Your task to perform on an android device: Show me recent news Image 0: 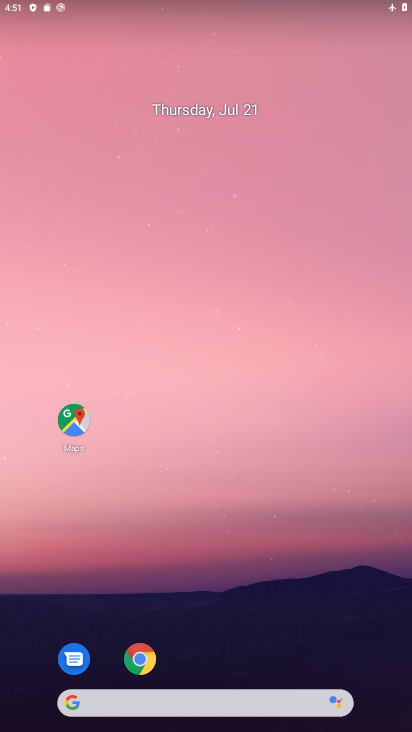
Step 0: drag from (8, 275) to (399, 314)
Your task to perform on an android device: Show me recent news Image 1: 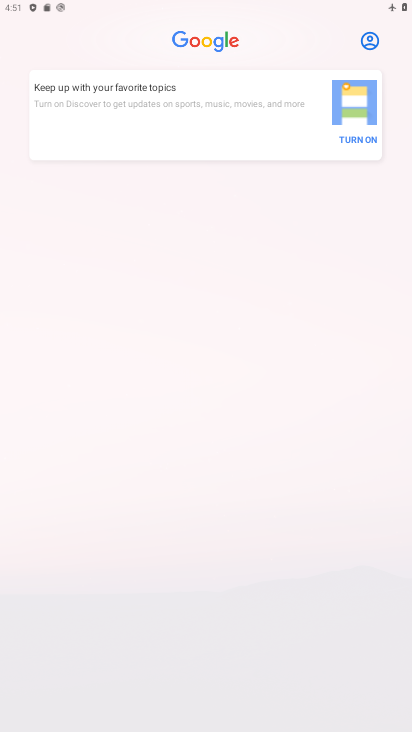
Step 1: click (355, 137)
Your task to perform on an android device: Show me recent news Image 2: 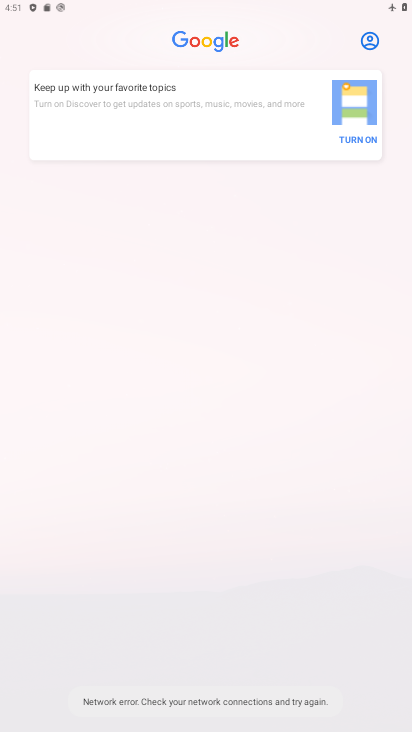
Step 2: task complete